Your task to perform on an android device: check android version Image 0: 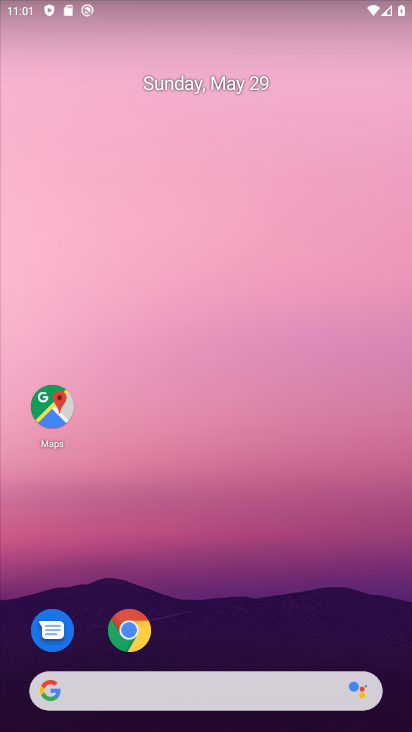
Step 0: drag from (135, 729) to (85, 45)
Your task to perform on an android device: check android version Image 1: 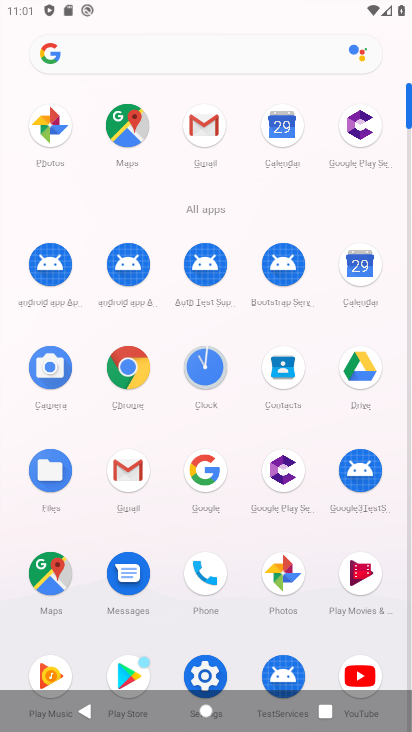
Step 1: click (202, 669)
Your task to perform on an android device: check android version Image 2: 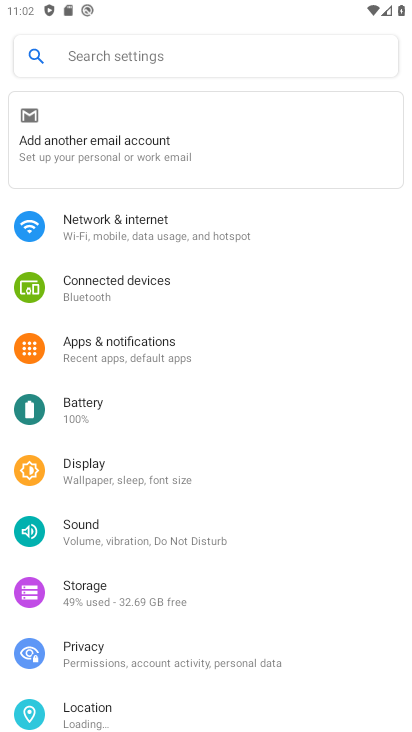
Step 2: drag from (243, 669) to (199, 76)
Your task to perform on an android device: check android version Image 3: 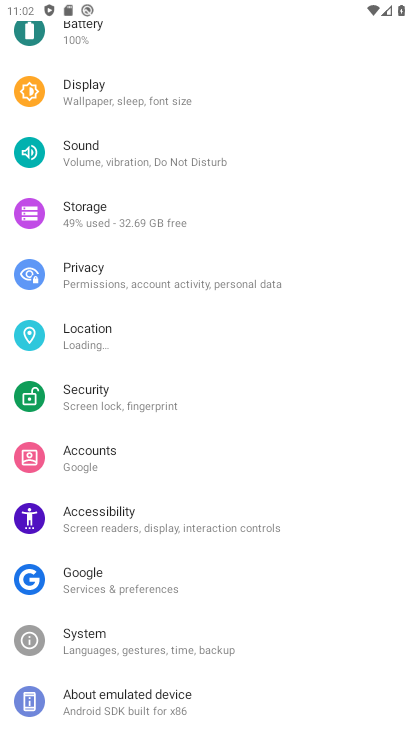
Step 3: click (166, 711)
Your task to perform on an android device: check android version Image 4: 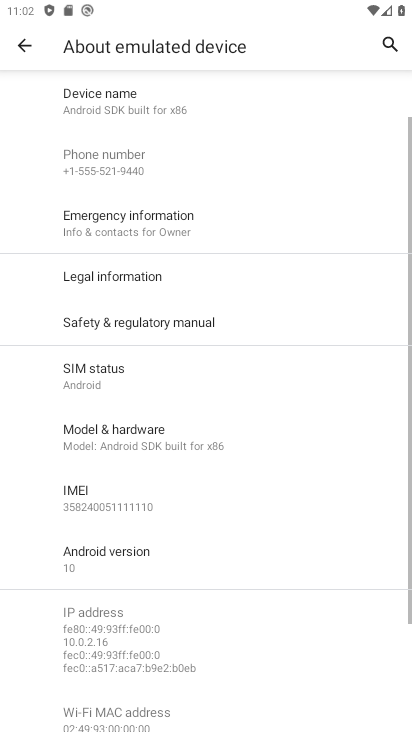
Step 4: click (108, 568)
Your task to perform on an android device: check android version Image 5: 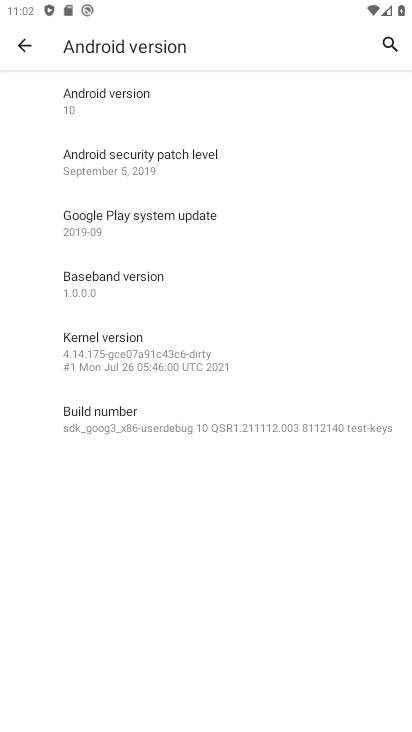
Step 5: task complete